Your task to perform on an android device: Open internet settings Image 0: 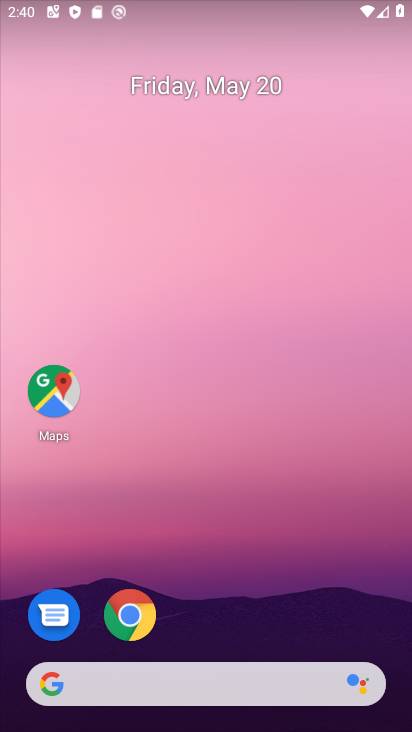
Step 0: drag from (244, 572) to (261, 266)
Your task to perform on an android device: Open internet settings Image 1: 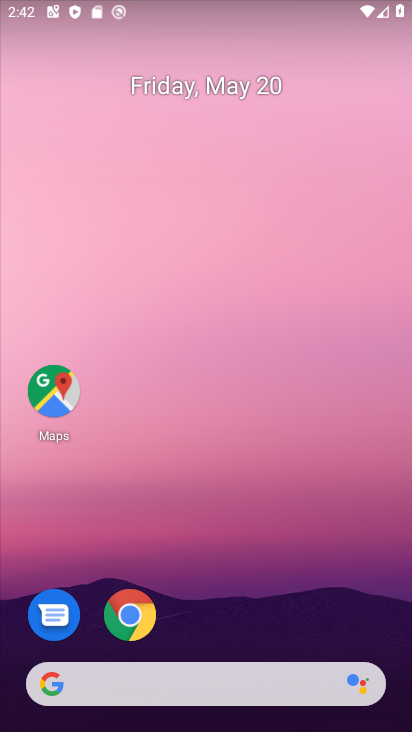
Step 1: drag from (212, 583) to (240, 199)
Your task to perform on an android device: Open internet settings Image 2: 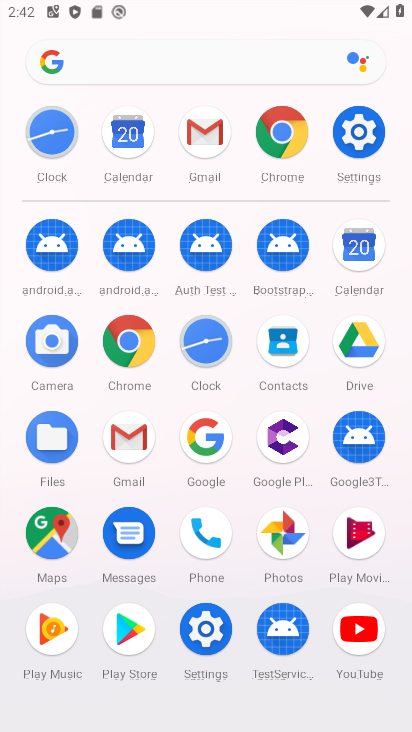
Step 2: click (329, 140)
Your task to perform on an android device: Open internet settings Image 3: 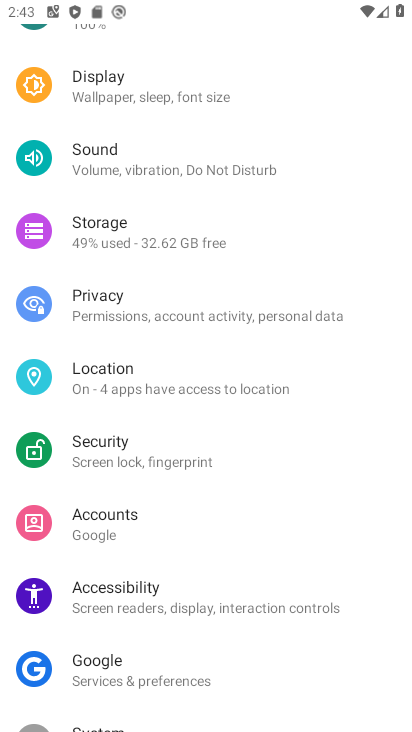
Step 3: drag from (210, 162) to (212, 619)
Your task to perform on an android device: Open internet settings Image 4: 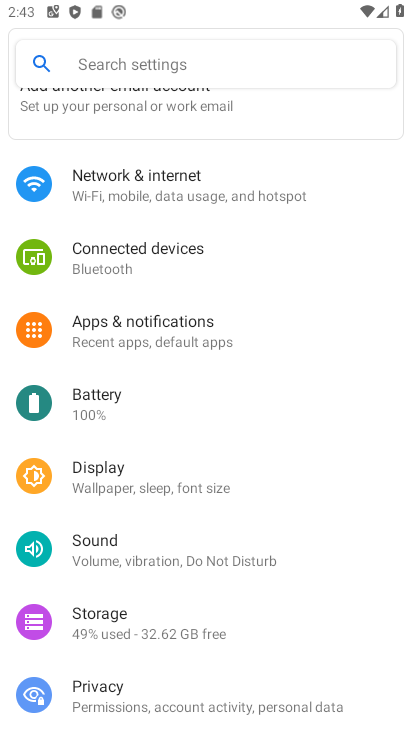
Step 4: drag from (300, 129) to (286, 425)
Your task to perform on an android device: Open internet settings Image 5: 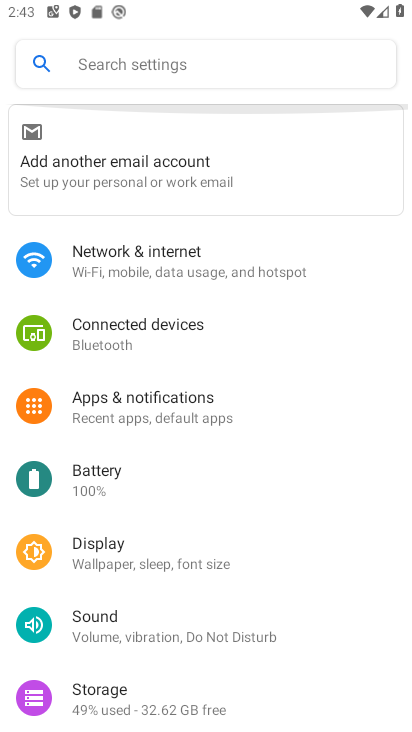
Step 5: click (195, 184)
Your task to perform on an android device: Open internet settings Image 6: 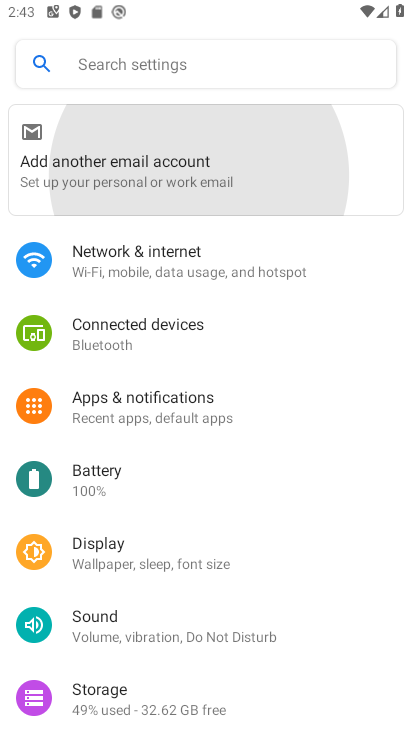
Step 6: click (188, 251)
Your task to perform on an android device: Open internet settings Image 7: 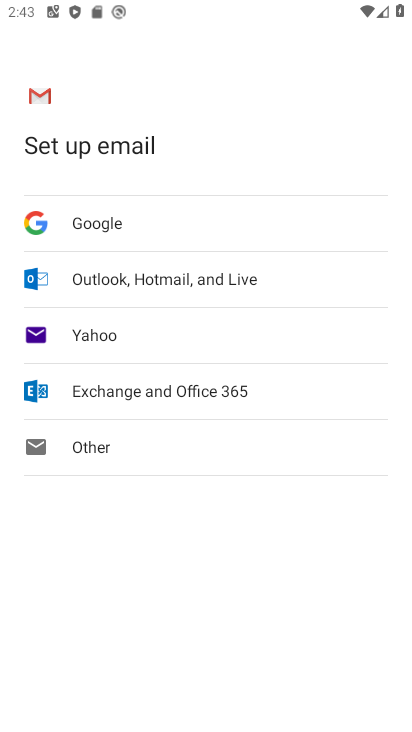
Step 7: press back button
Your task to perform on an android device: Open internet settings Image 8: 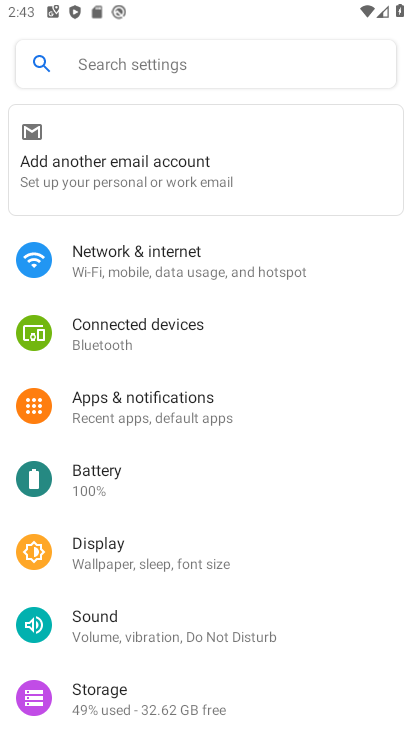
Step 8: click (139, 253)
Your task to perform on an android device: Open internet settings Image 9: 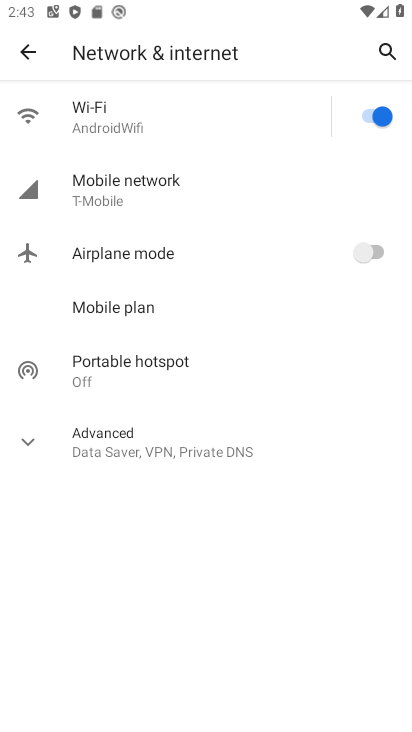
Step 9: click (157, 177)
Your task to perform on an android device: Open internet settings Image 10: 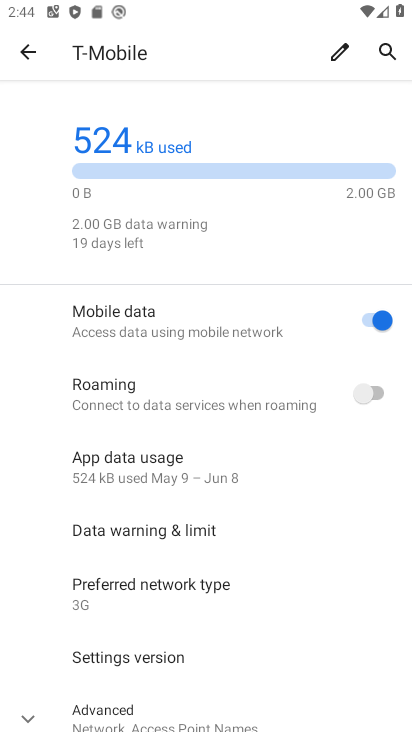
Step 10: task complete